Your task to perform on an android device: open sync settings in chrome Image 0: 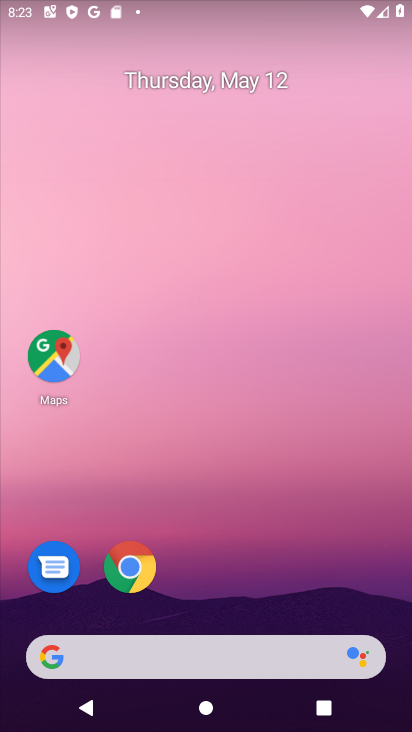
Step 0: drag from (249, 613) to (249, 345)
Your task to perform on an android device: open sync settings in chrome Image 1: 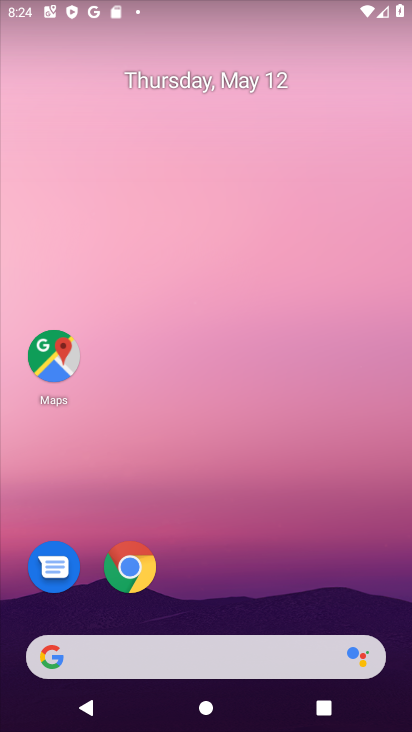
Step 1: drag from (171, 607) to (201, 170)
Your task to perform on an android device: open sync settings in chrome Image 2: 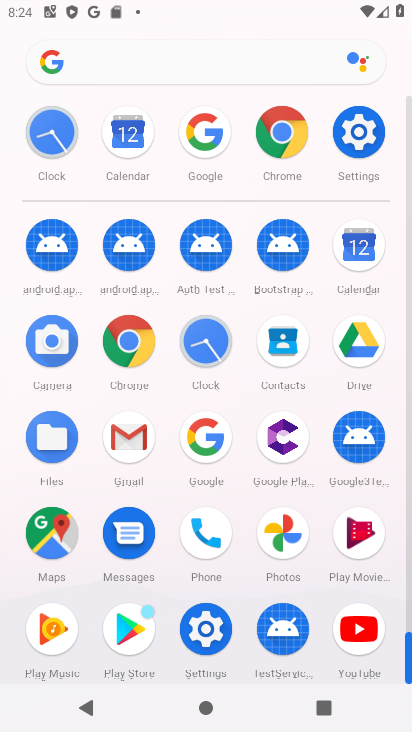
Step 2: click (281, 135)
Your task to perform on an android device: open sync settings in chrome Image 3: 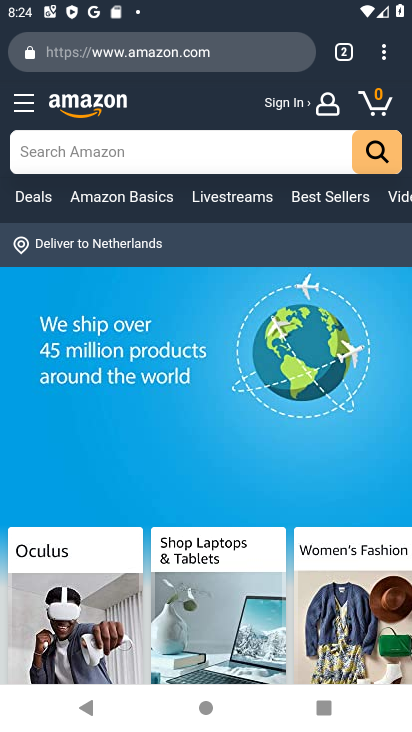
Step 3: click (379, 36)
Your task to perform on an android device: open sync settings in chrome Image 4: 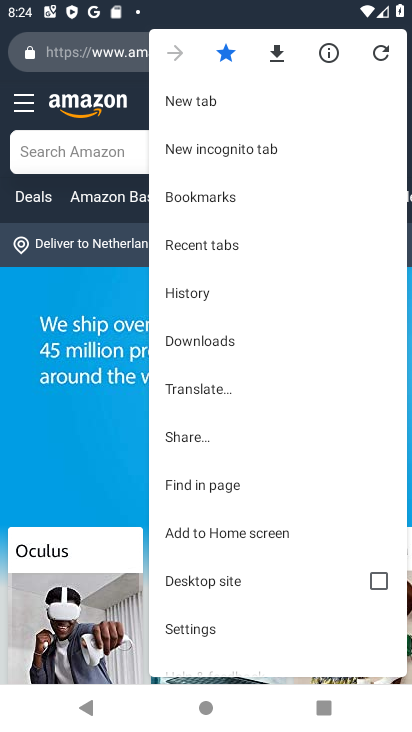
Step 4: drag from (219, 516) to (279, 84)
Your task to perform on an android device: open sync settings in chrome Image 5: 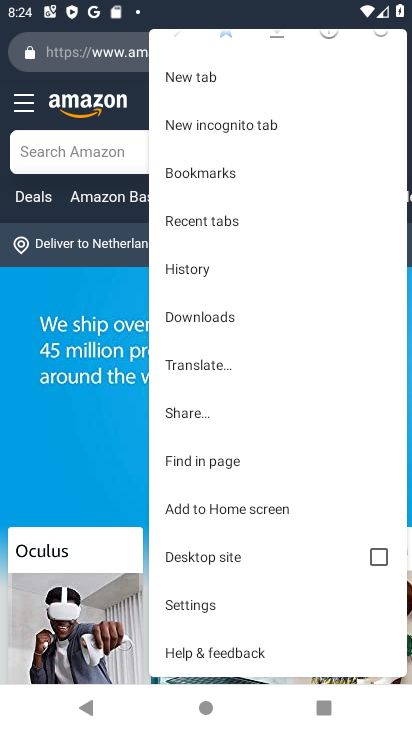
Step 5: click (217, 611)
Your task to perform on an android device: open sync settings in chrome Image 6: 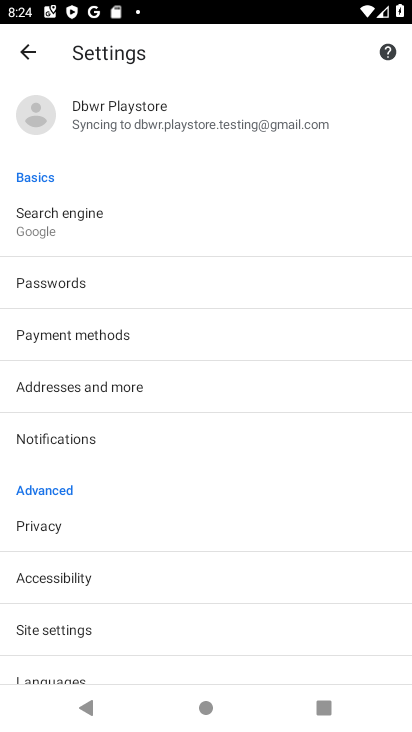
Step 6: click (165, 132)
Your task to perform on an android device: open sync settings in chrome Image 7: 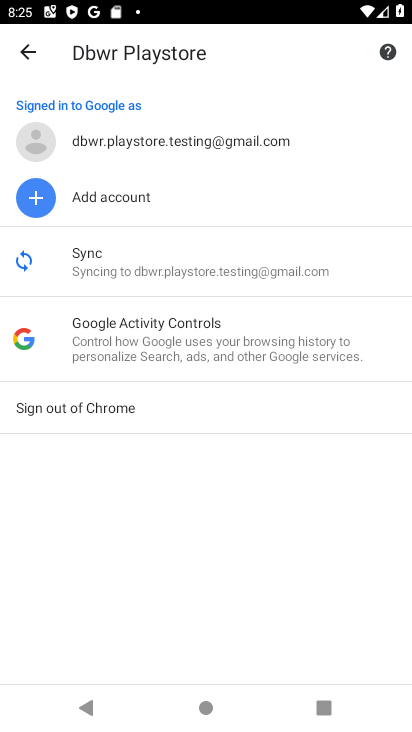
Step 7: click (156, 255)
Your task to perform on an android device: open sync settings in chrome Image 8: 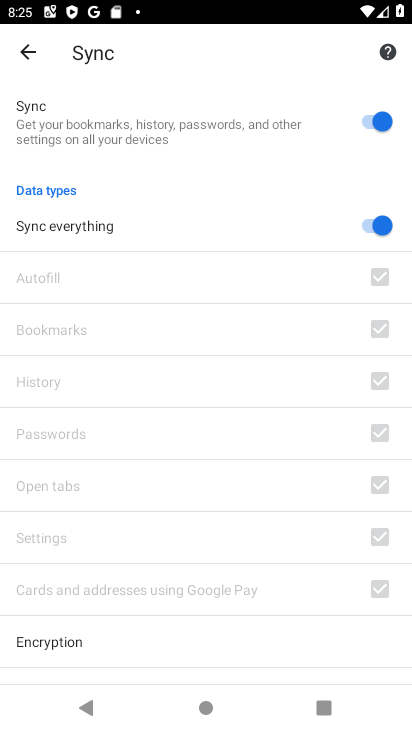
Step 8: task complete